Your task to perform on an android device: open a bookmark in the chrome app Image 0: 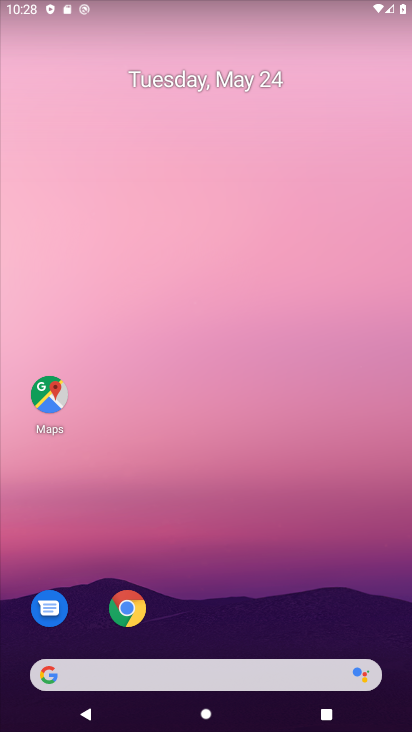
Step 0: click (126, 608)
Your task to perform on an android device: open a bookmark in the chrome app Image 1: 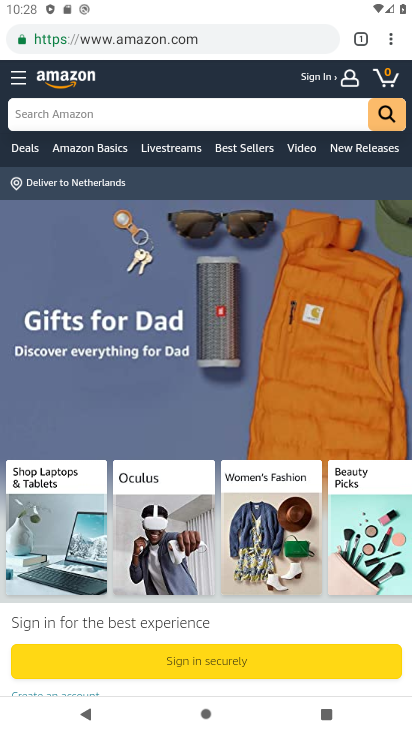
Step 1: click (388, 42)
Your task to perform on an android device: open a bookmark in the chrome app Image 2: 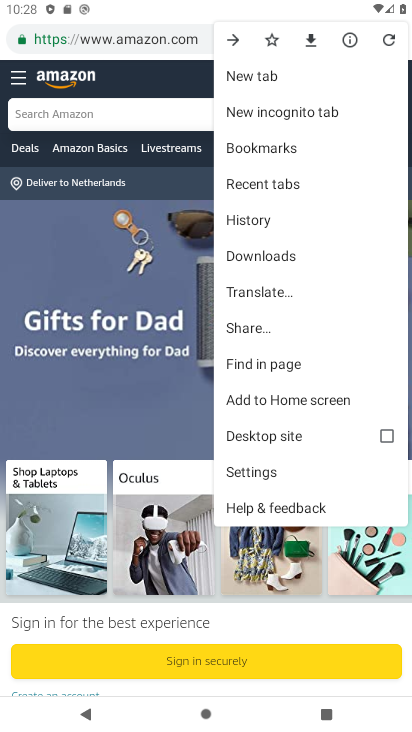
Step 2: click (245, 143)
Your task to perform on an android device: open a bookmark in the chrome app Image 3: 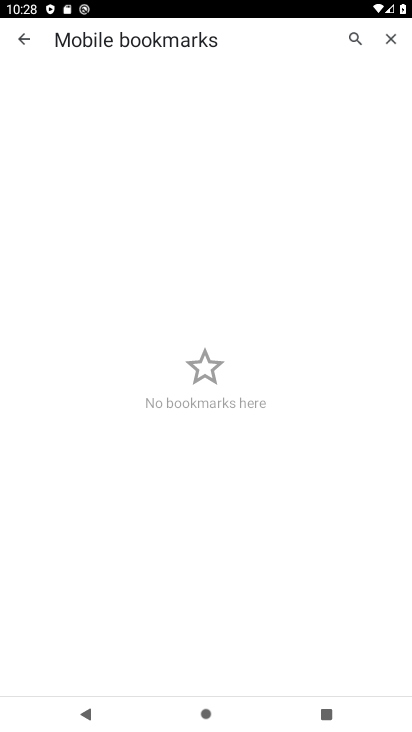
Step 3: task complete